Your task to perform on an android device: Turn off the flashlight Image 0: 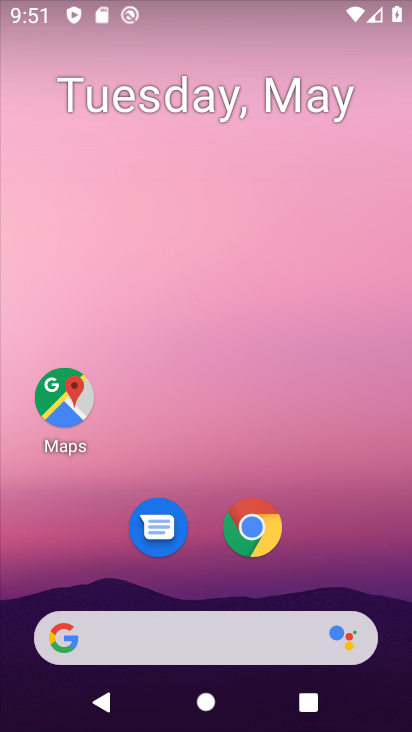
Step 0: drag from (204, 559) to (222, 48)
Your task to perform on an android device: Turn off the flashlight Image 1: 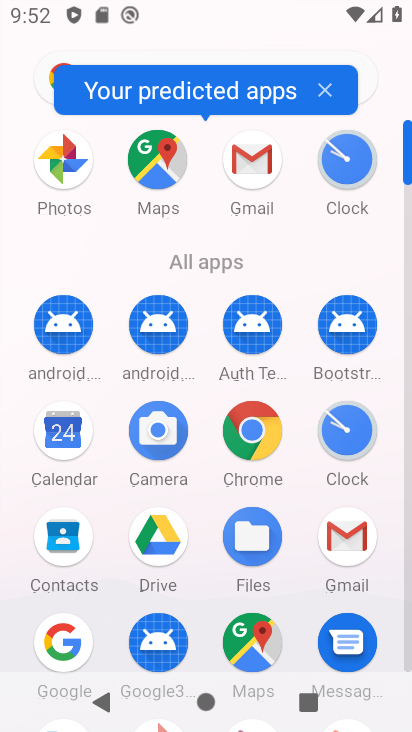
Step 1: drag from (196, 530) to (209, 293)
Your task to perform on an android device: Turn off the flashlight Image 2: 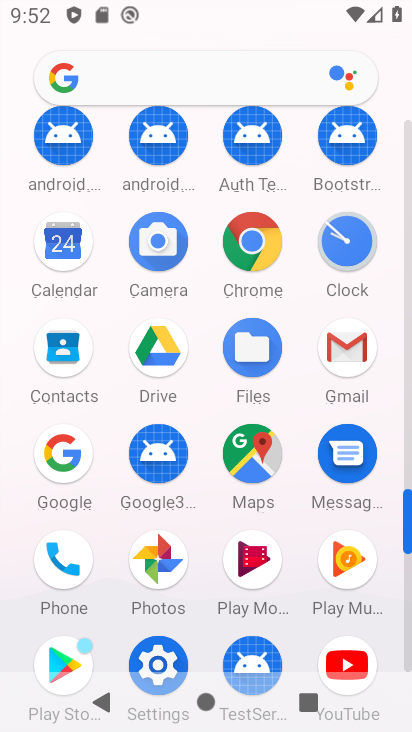
Step 2: click (162, 653)
Your task to perform on an android device: Turn off the flashlight Image 3: 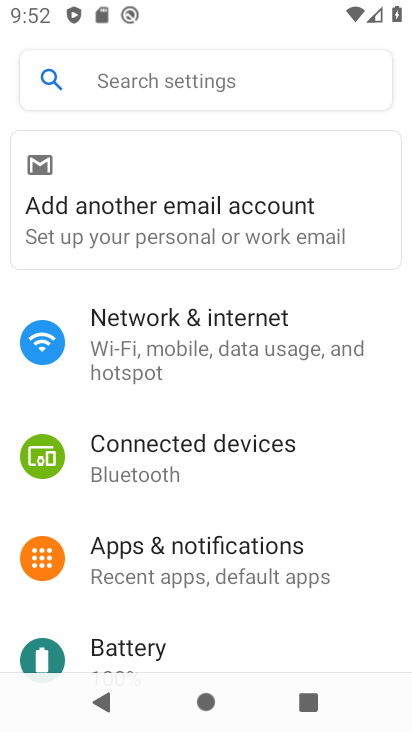
Step 3: click (175, 81)
Your task to perform on an android device: Turn off the flashlight Image 4: 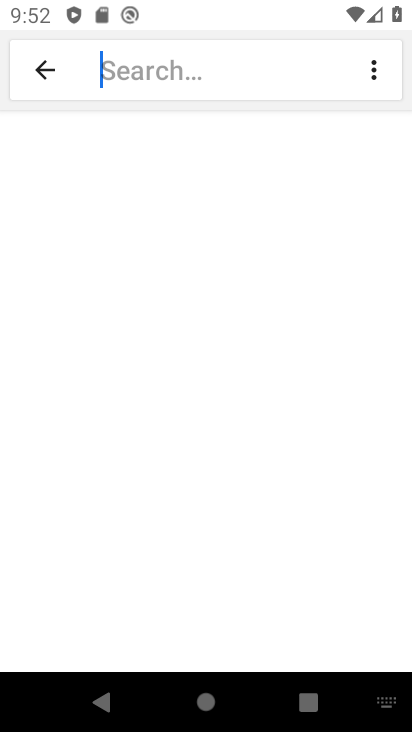
Step 4: type "flash"
Your task to perform on an android device: Turn off the flashlight Image 5: 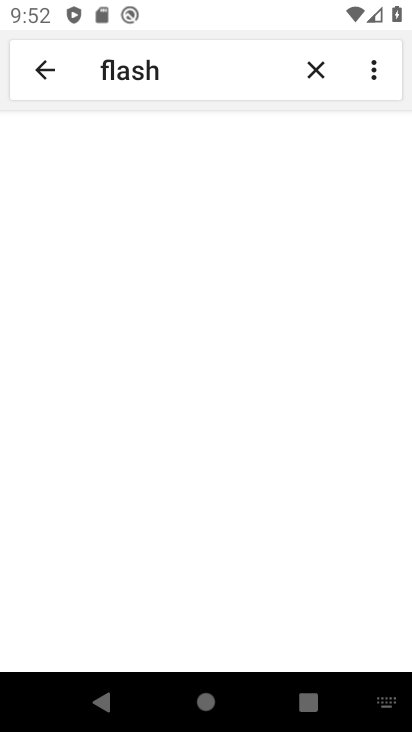
Step 5: task complete